Your task to perform on an android device: Open calendar and show me the first week of next month Image 0: 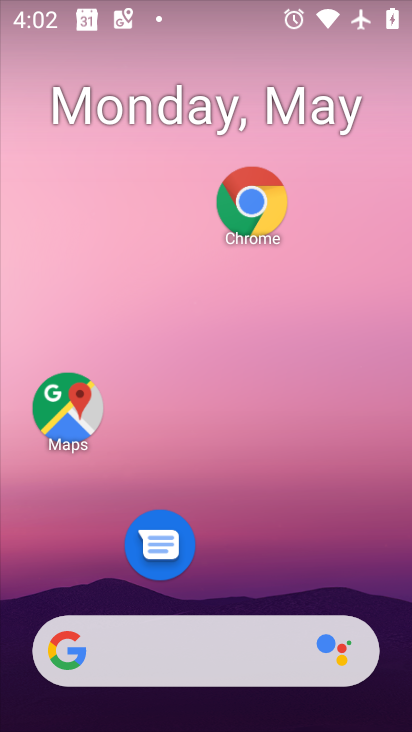
Step 0: drag from (270, 554) to (281, 136)
Your task to perform on an android device: Open calendar and show me the first week of next month Image 1: 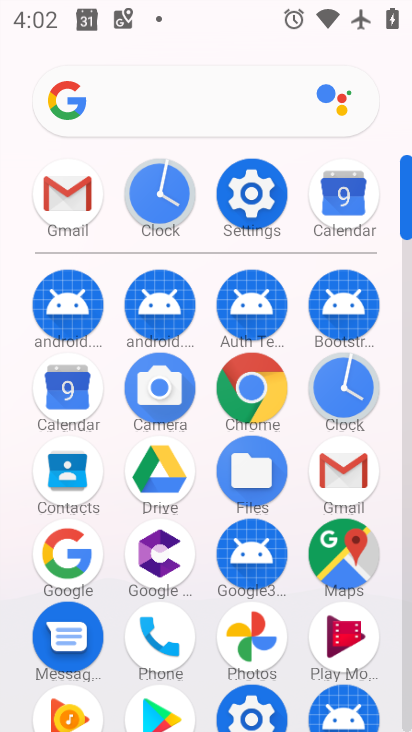
Step 1: click (345, 207)
Your task to perform on an android device: Open calendar and show me the first week of next month Image 2: 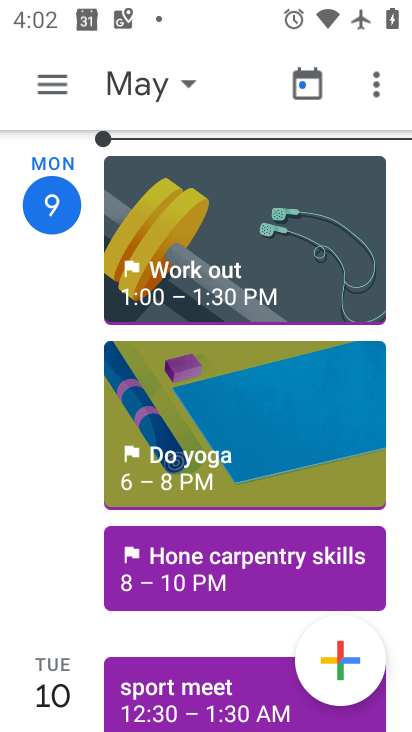
Step 2: click (170, 75)
Your task to perform on an android device: Open calendar and show me the first week of next month Image 3: 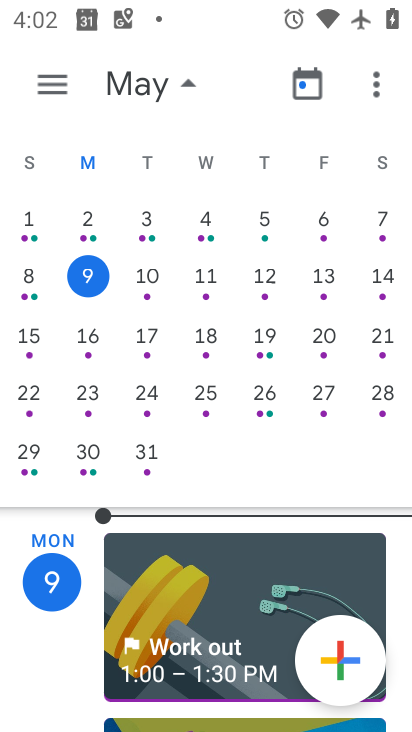
Step 3: drag from (350, 284) to (14, 294)
Your task to perform on an android device: Open calendar and show me the first week of next month Image 4: 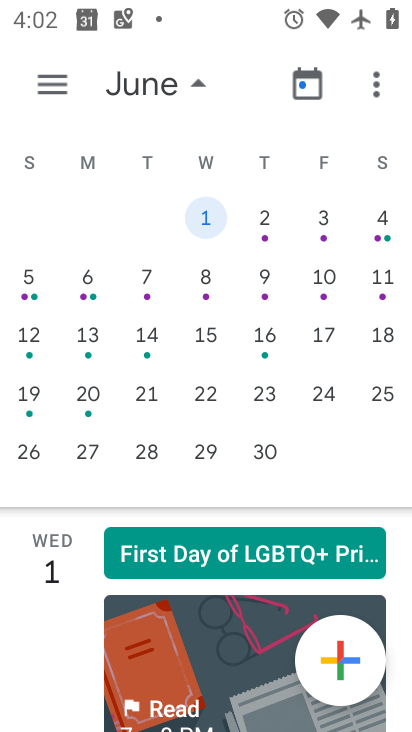
Step 4: click (203, 230)
Your task to perform on an android device: Open calendar and show me the first week of next month Image 5: 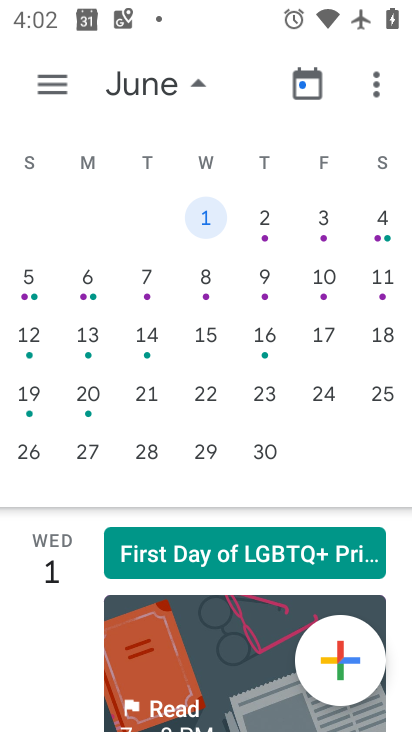
Step 5: click (389, 227)
Your task to perform on an android device: Open calendar and show me the first week of next month Image 6: 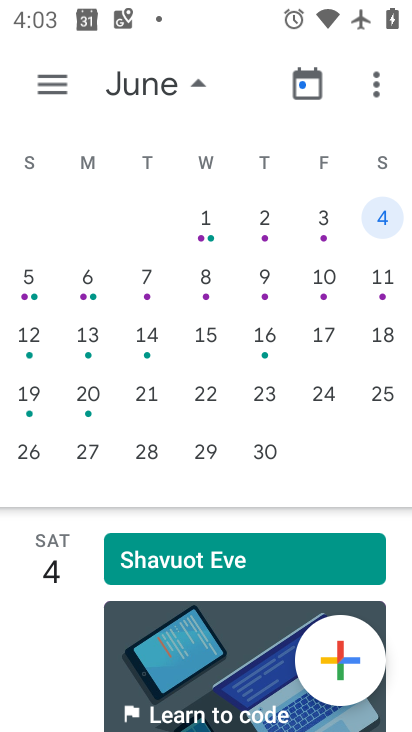
Step 6: task complete